Your task to perform on an android device: Open Youtube and go to "Your channel" Image 0: 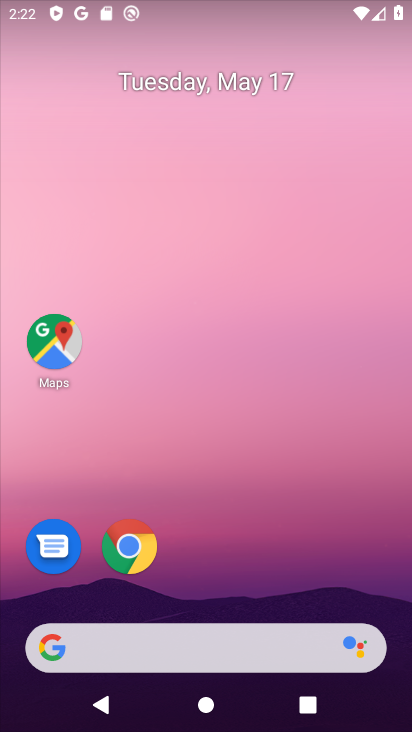
Step 0: drag from (214, 590) to (255, 115)
Your task to perform on an android device: Open Youtube and go to "Your channel" Image 1: 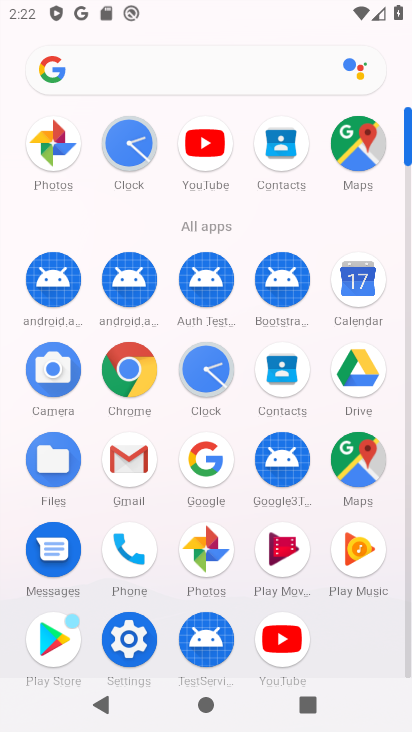
Step 1: click (206, 172)
Your task to perform on an android device: Open Youtube and go to "Your channel" Image 2: 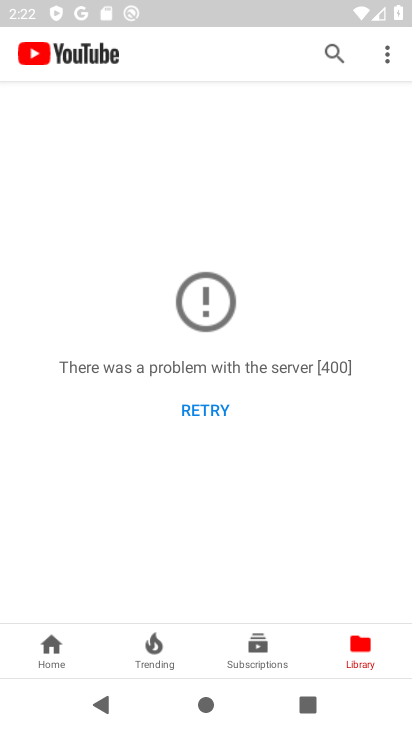
Step 2: click (221, 408)
Your task to perform on an android device: Open Youtube and go to "Your channel" Image 3: 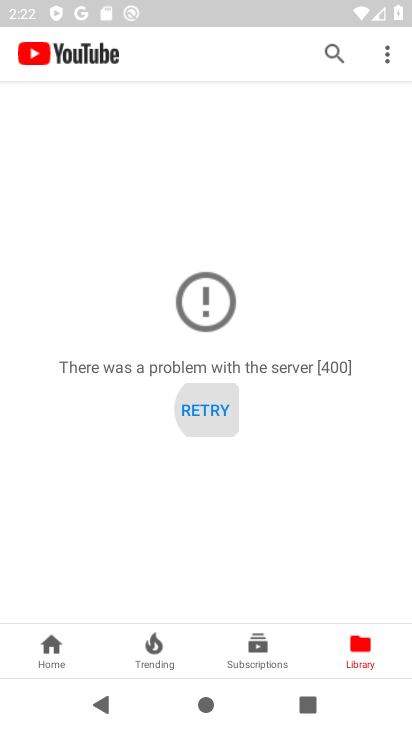
Step 3: click (221, 408)
Your task to perform on an android device: Open Youtube and go to "Your channel" Image 4: 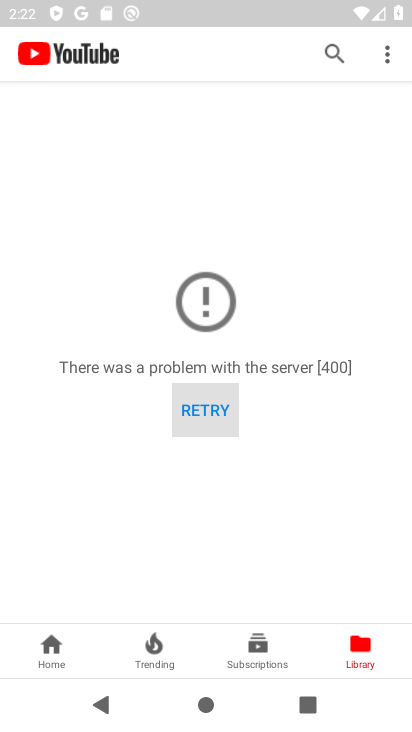
Step 4: click (222, 409)
Your task to perform on an android device: Open Youtube and go to "Your channel" Image 5: 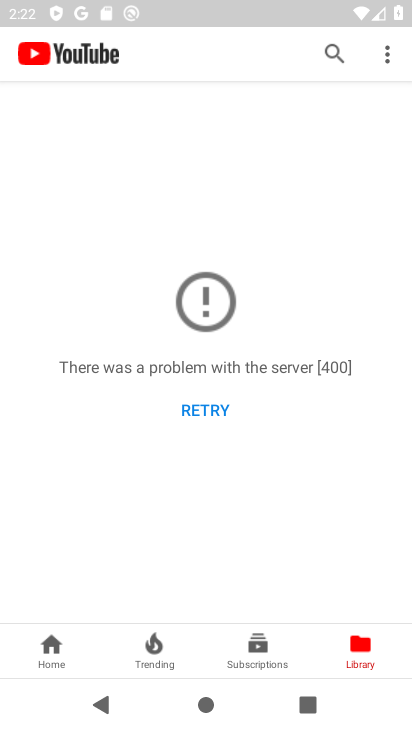
Step 5: press home button
Your task to perform on an android device: Open Youtube and go to "Your channel" Image 6: 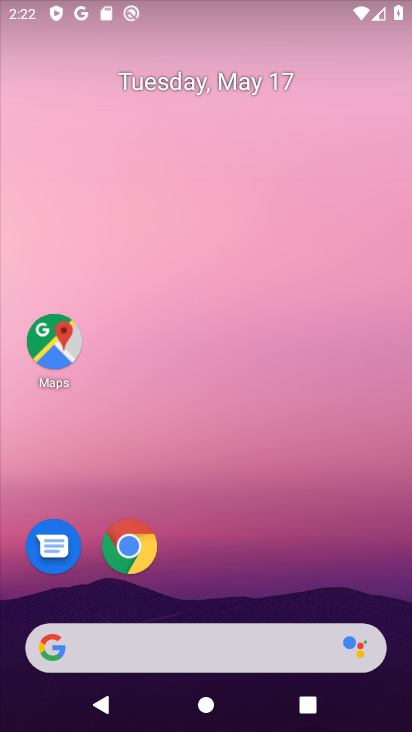
Step 6: drag from (223, 559) to (175, 41)
Your task to perform on an android device: Open Youtube and go to "Your channel" Image 7: 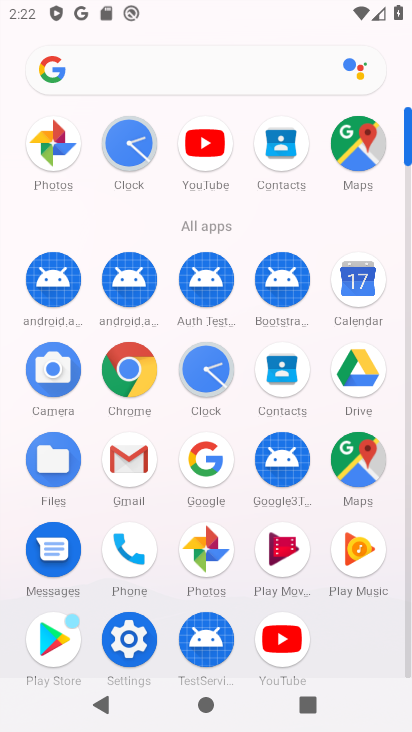
Step 7: drag from (164, 661) to (174, 464)
Your task to perform on an android device: Open Youtube and go to "Your channel" Image 8: 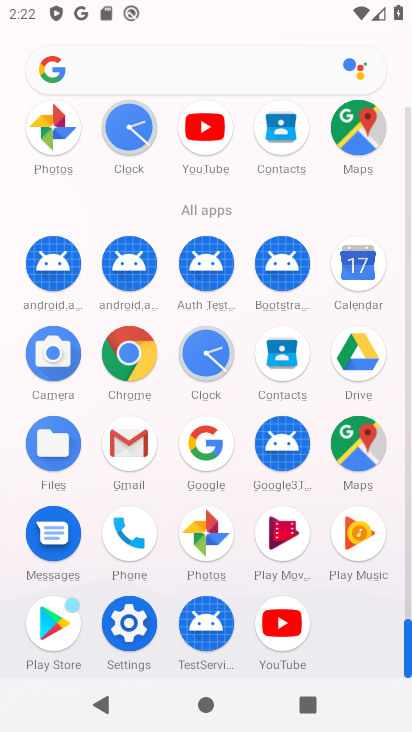
Step 8: click (50, 632)
Your task to perform on an android device: Open Youtube and go to "Your channel" Image 9: 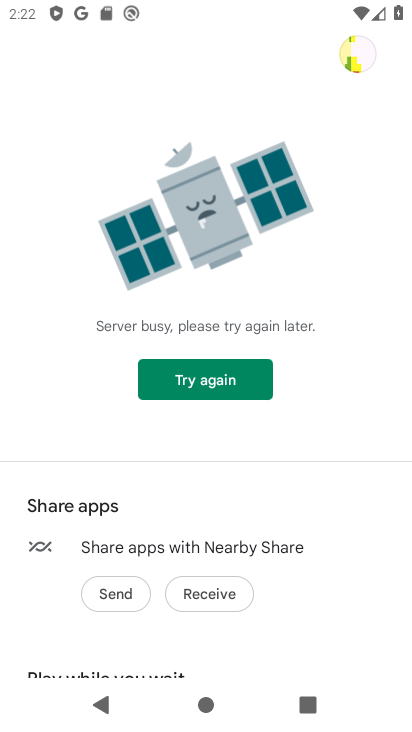
Step 9: click (261, 385)
Your task to perform on an android device: Open Youtube and go to "Your channel" Image 10: 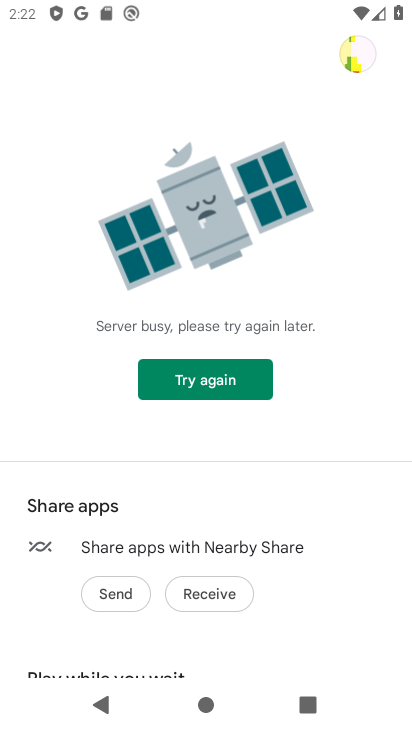
Step 10: click (242, 384)
Your task to perform on an android device: Open Youtube and go to "Your channel" Image 11: 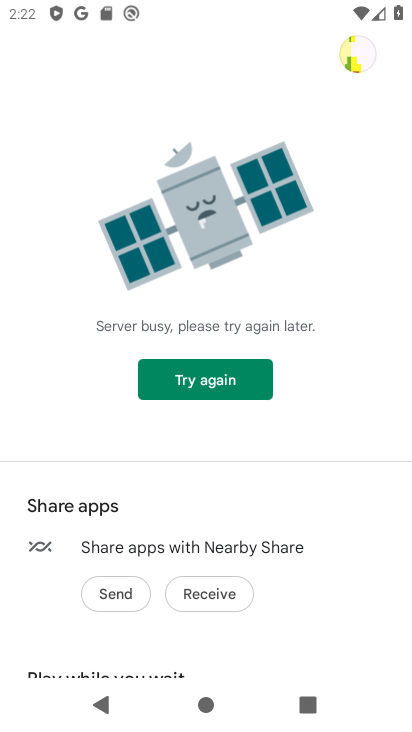
Step 11: click (226, 389)
Your task to perform on an android device: Open Youtube and go to "Your channel" Image 12: 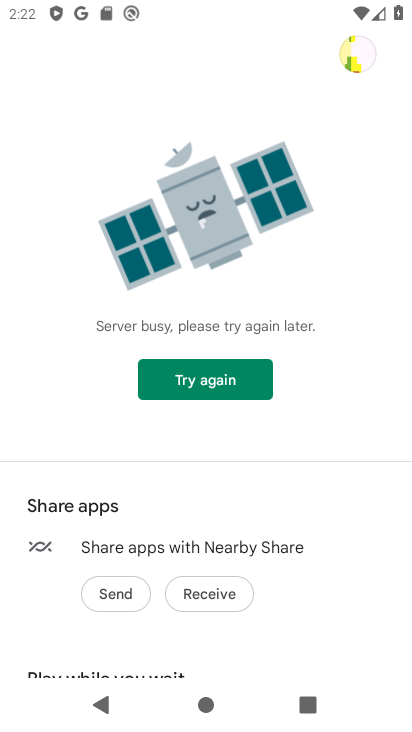
Step 12: click (242, 380)
Your task to perform on an android device: Open Youtube and go to "Your channel" Image 13: 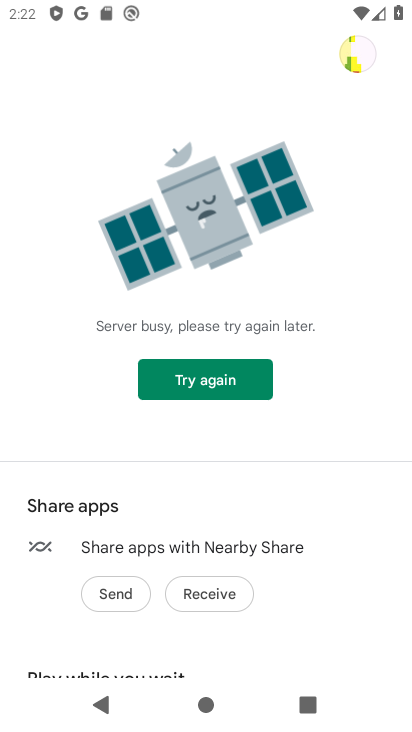
Step 13: task complete